Your task to perform on an android device: turn on sleep mode Image 0: 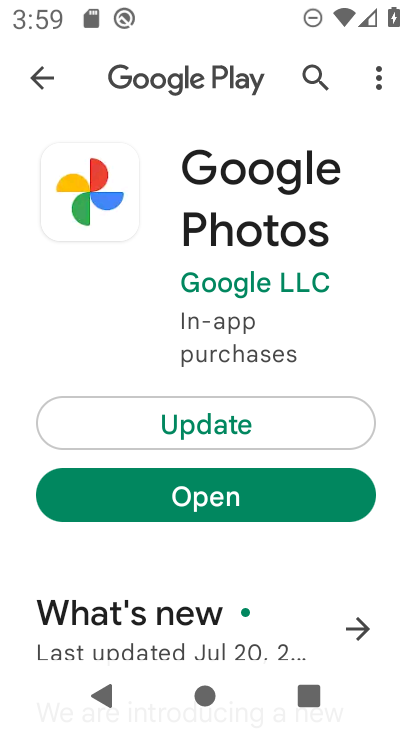
Step 0: press back button
Your task to perform on an android device: turn on sleep mode Image 1: 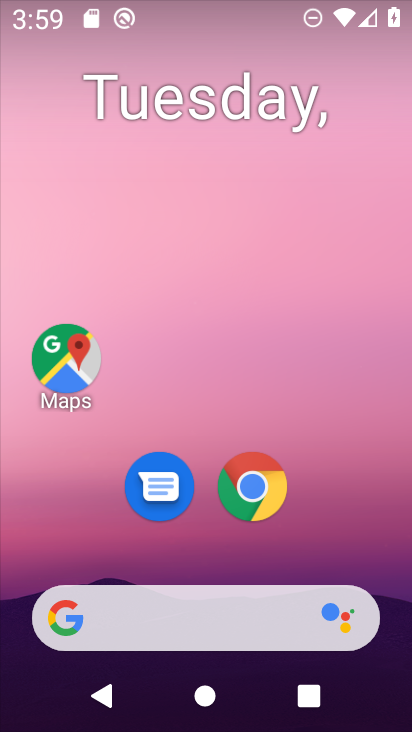
Step 1: drag from (193, 547) to (308, 28)
Your task to perform on an android device: turn on sleep mode Image 2: 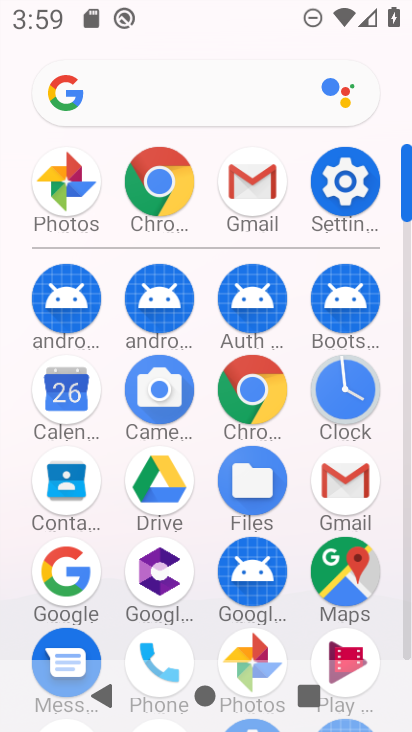
Step 2: click (345, 187)
Your task to perform on an android device: turn on sleep mode Image 3: 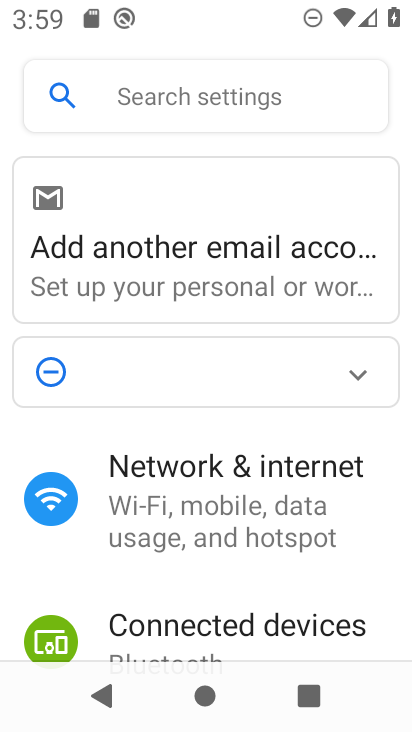
Step 3: click (159, 85)
Your task to perform on an android device: turn on sleep mode Image 4: 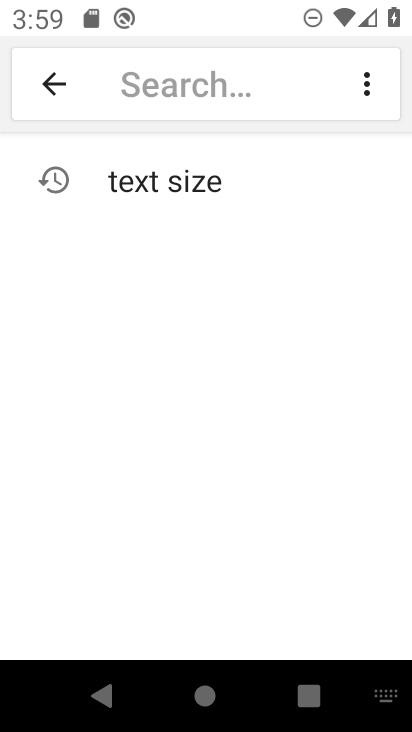
Step 4: type "sleep mode"
Your task to perform on an android device: turn on sleep mode Image 5: 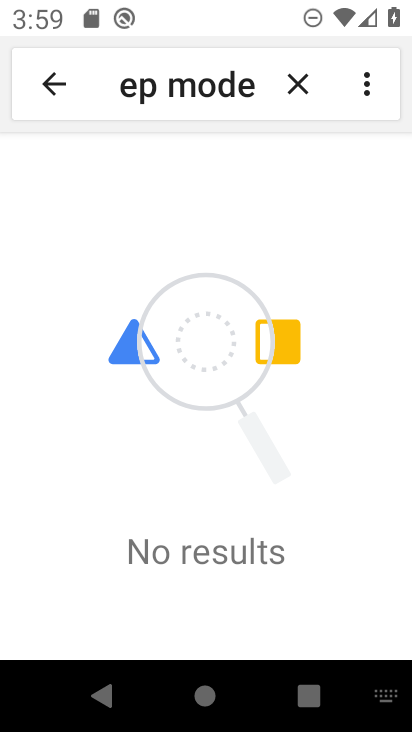
Step 5: task complete